Your task to perform on an android device: Do I have any events today? Image 0: 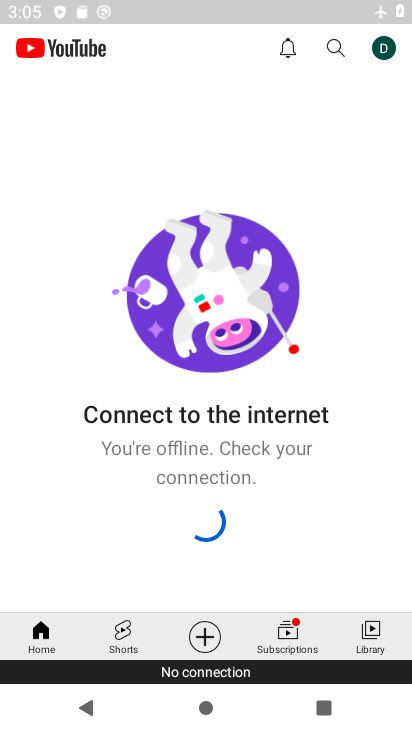
Step 0: press home button
Your task to perform on an android device: Do I have any events today? Image 1: 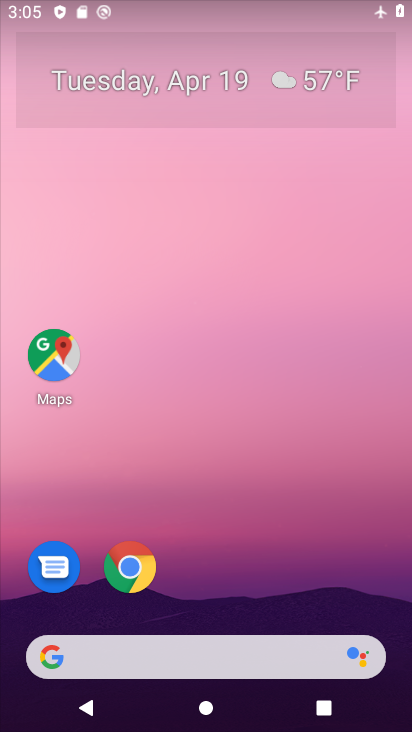
Step 1: drag from (302, 583) to (311, 119)
Your task to perform on an android device: Do I have any events today? Image 2: 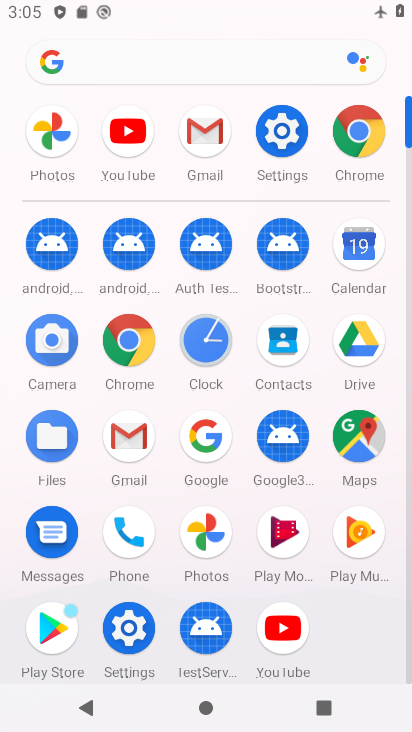
Step 2: click (354, 248)
Your task to perform on an android device: Do I have any events today? Image 3: 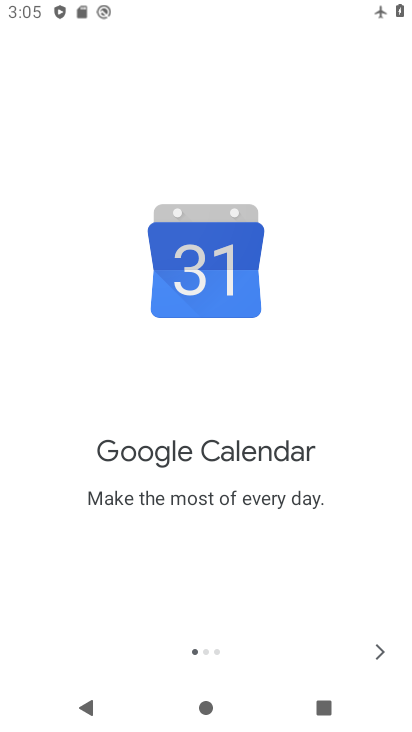
Step 3: click (378, 655)
Your task to perform on an android device: Do I have any events today? Image 4: 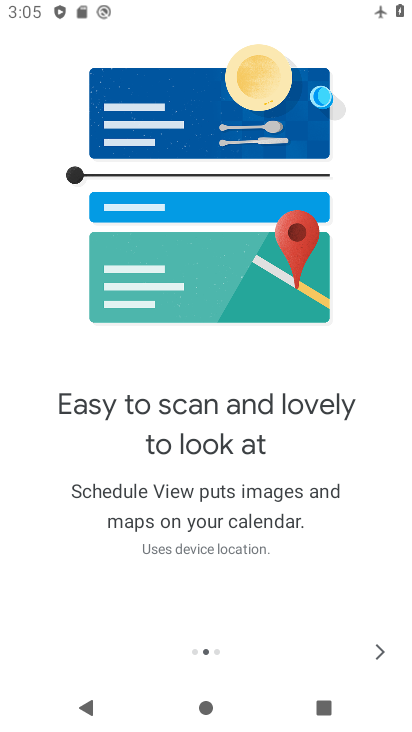
Step 4: click (372, 645)
Your task to perform on an android device: Do I have any events today? Image 5: 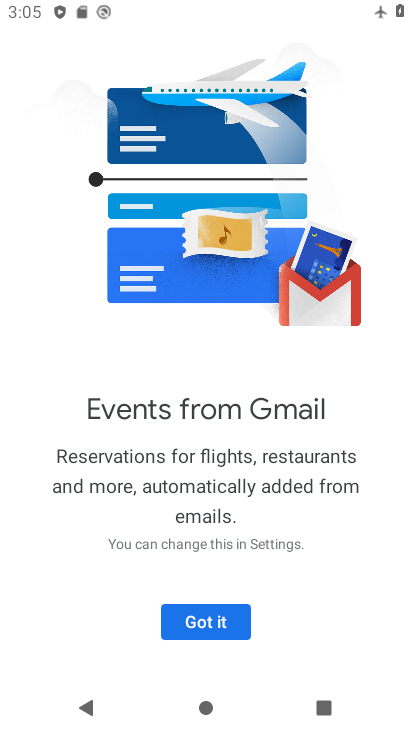
Step 5: click (178, 620)
Your task to perform on an android device: Do I have any events today? Image 6: 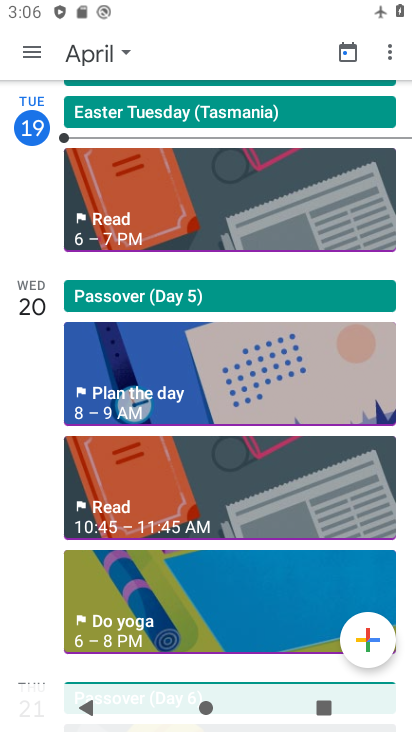
Step 6: click (126, 48)
Your task to perform on an android device: Do I have any events today? Image 7: 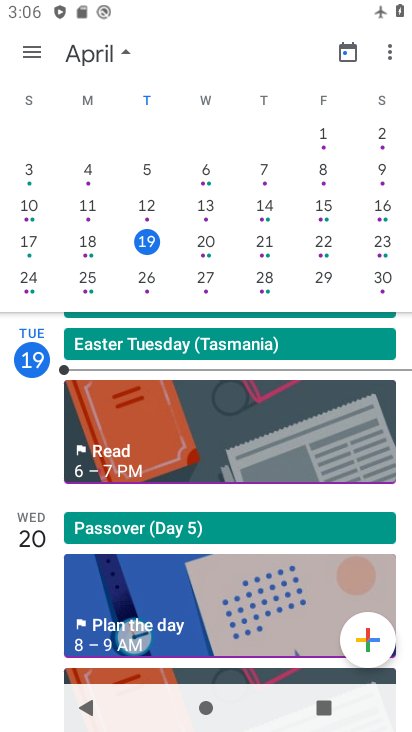
Step 7: click (31, 43)
Your task to perform on an android device: Do I have any events today? Image 8: 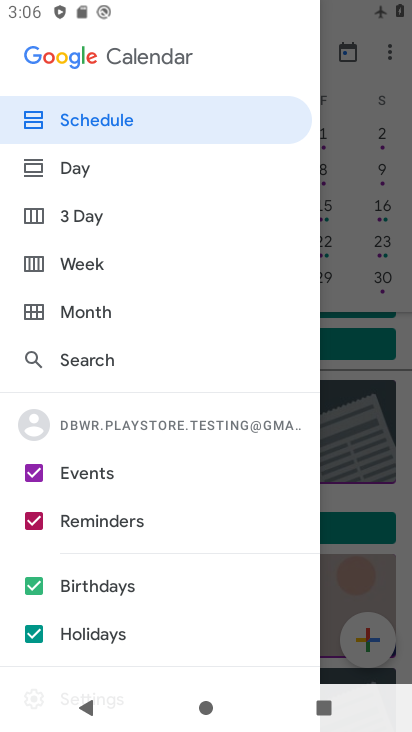
Step 8: click (357, 431)
Your task to perform on an android device: Do I have any events today? Image 9: 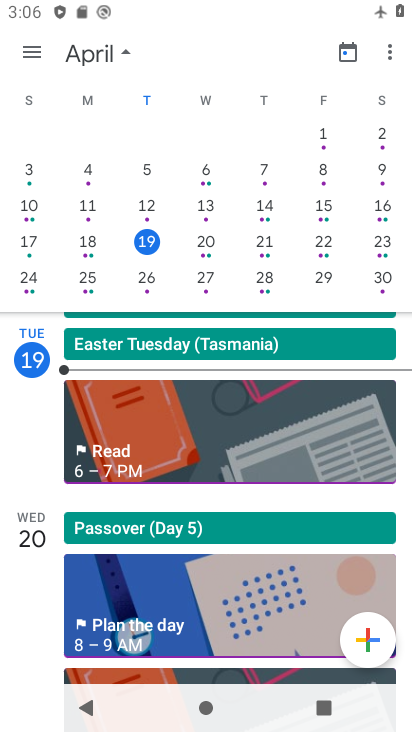
Step 9: click (221, 433)
Your task to perform on an android device: Do I have any events today? Image 10: 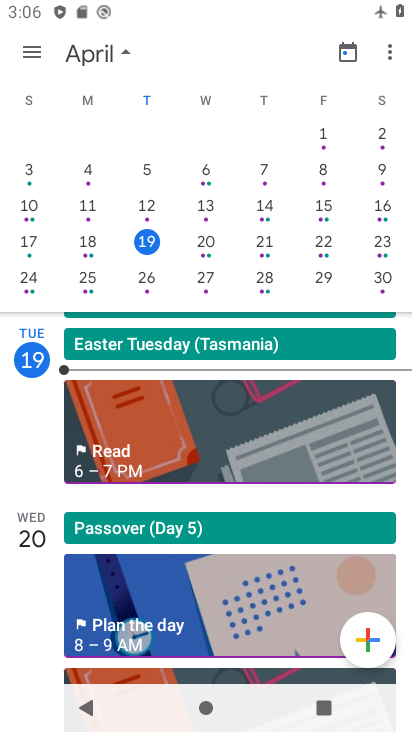
Step 10: task complete